Your task to perform on an android device: turn on airplane mode Image 0: 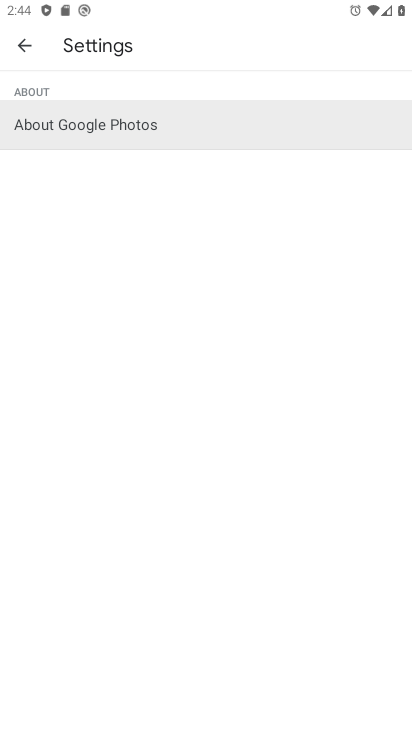
Step 0: press home button
Your task to perform on an android device: turn on airplane mode Image 1: 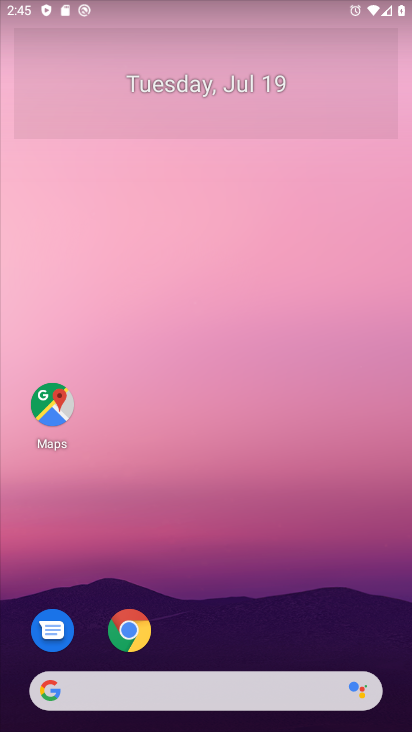
Step 1: drag from (275, 567) to (341, 73)
Your task to perform on an android device: turn on airplane mode Image 2: 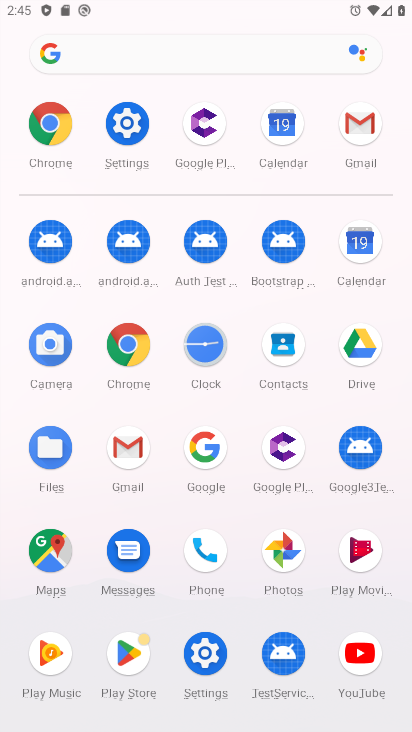
Step 2: click (129, 116)
Your task to perform on an android device: turn on airplane mode Image 3: 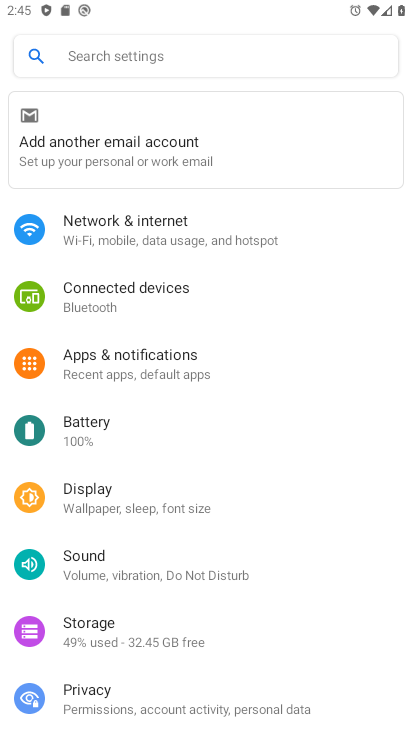
Step 3: click (178, 229)
Your task to perform on an android device: turn on airplane mode Image 4: 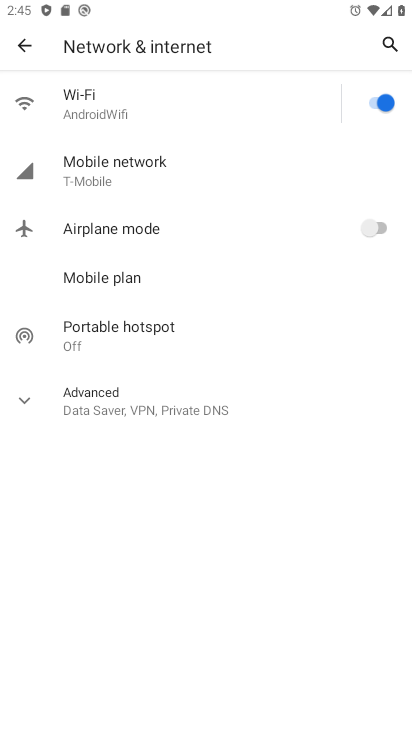
Step 4: click (366, 224)
Your task to perform on an android device: turn on airplane mode Image 5: 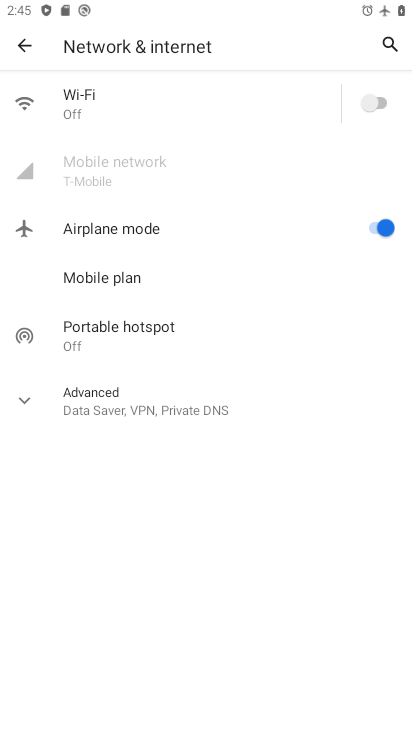
Step 5: task complete